Your task to perform on an android device: What is the news today? Image 0: 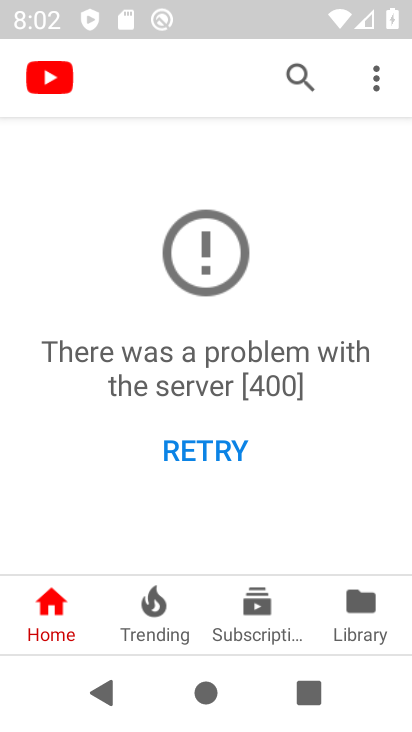
Step 0: press home button
Your task to perform on an android device: What is the news today? Image 1: 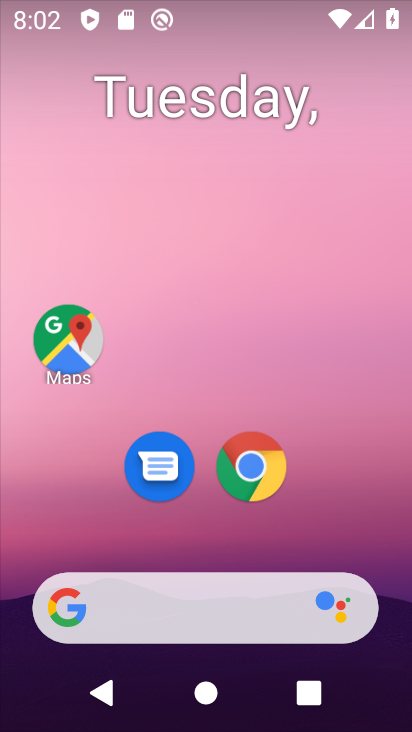
Step 1: click (180, 599)
Your task to perform on an android device: What is the news today? Image 2: 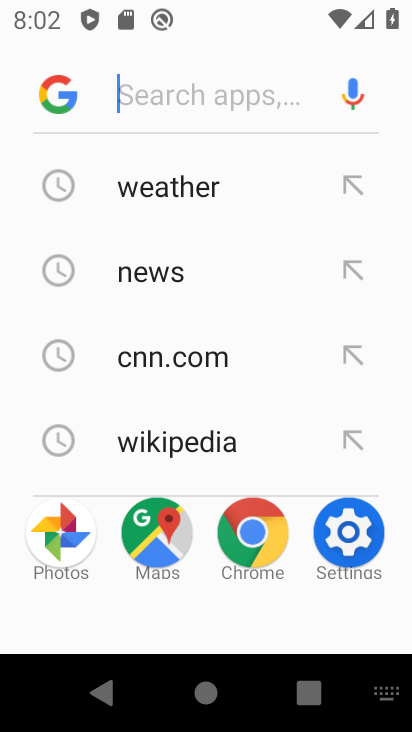
Step 2: type "news today?"
Your task to perform on an android device: What is the news today? Image 3: 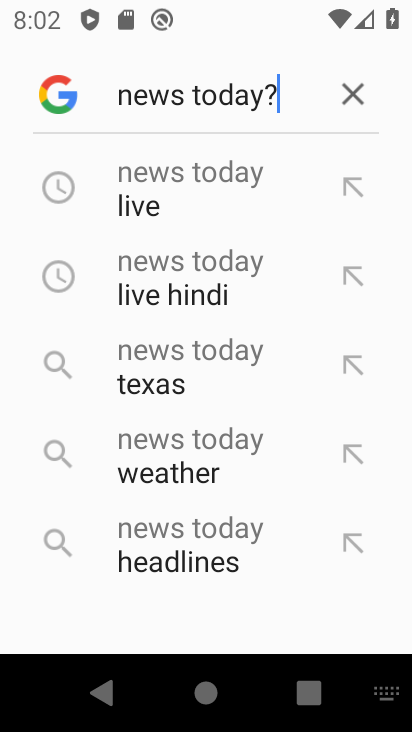
Step 3: click (233, 192)
Your task to perform on an android device: What is the news today? Image 4: 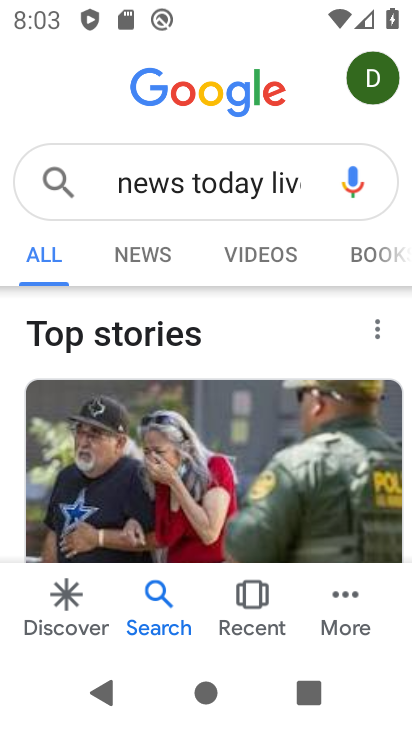
Step 4: task complete